Your task to perform on an android device: uninstall "Truecaller" Image 0: 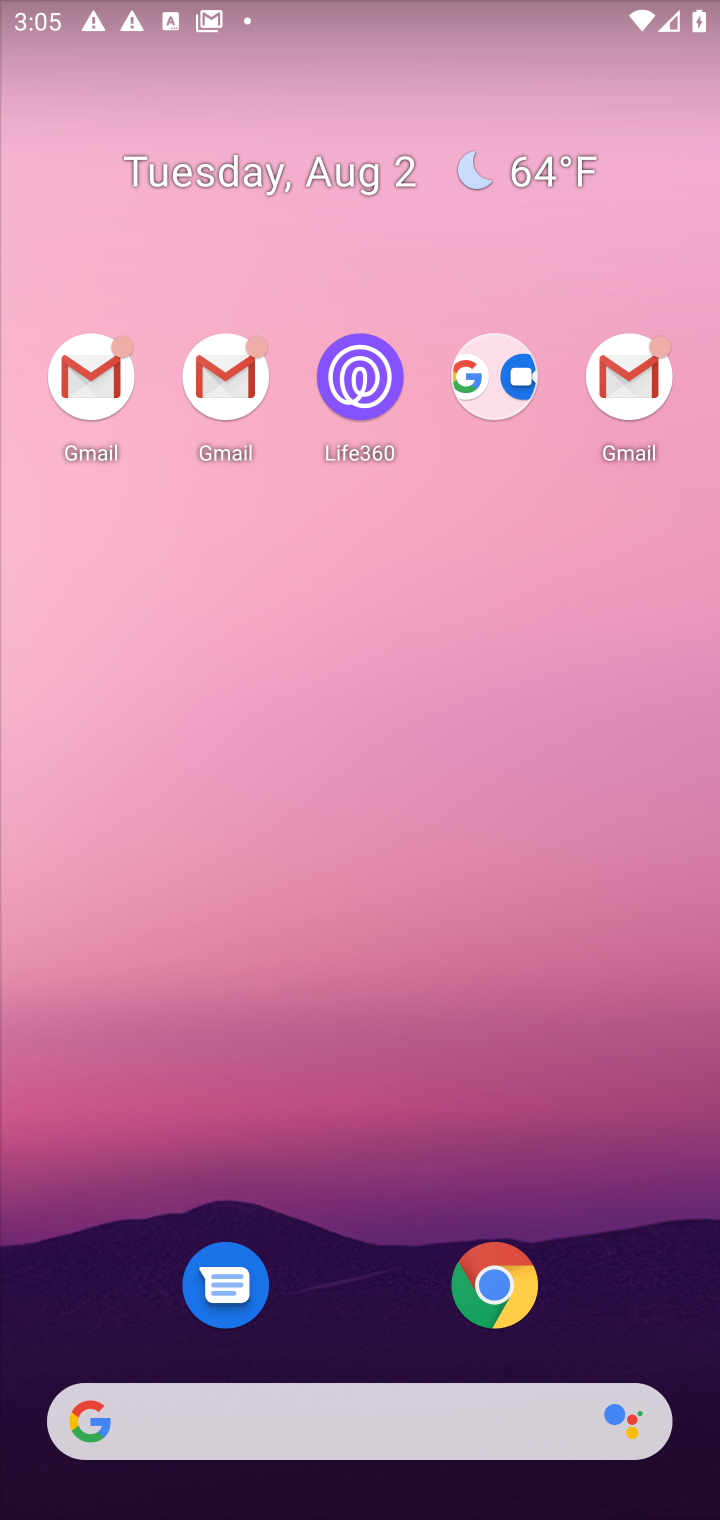
Step 0: drag from (315, 1184) to (436, 73)
Your task to perform on an android device: uninstall "Truecaller" Image 1: 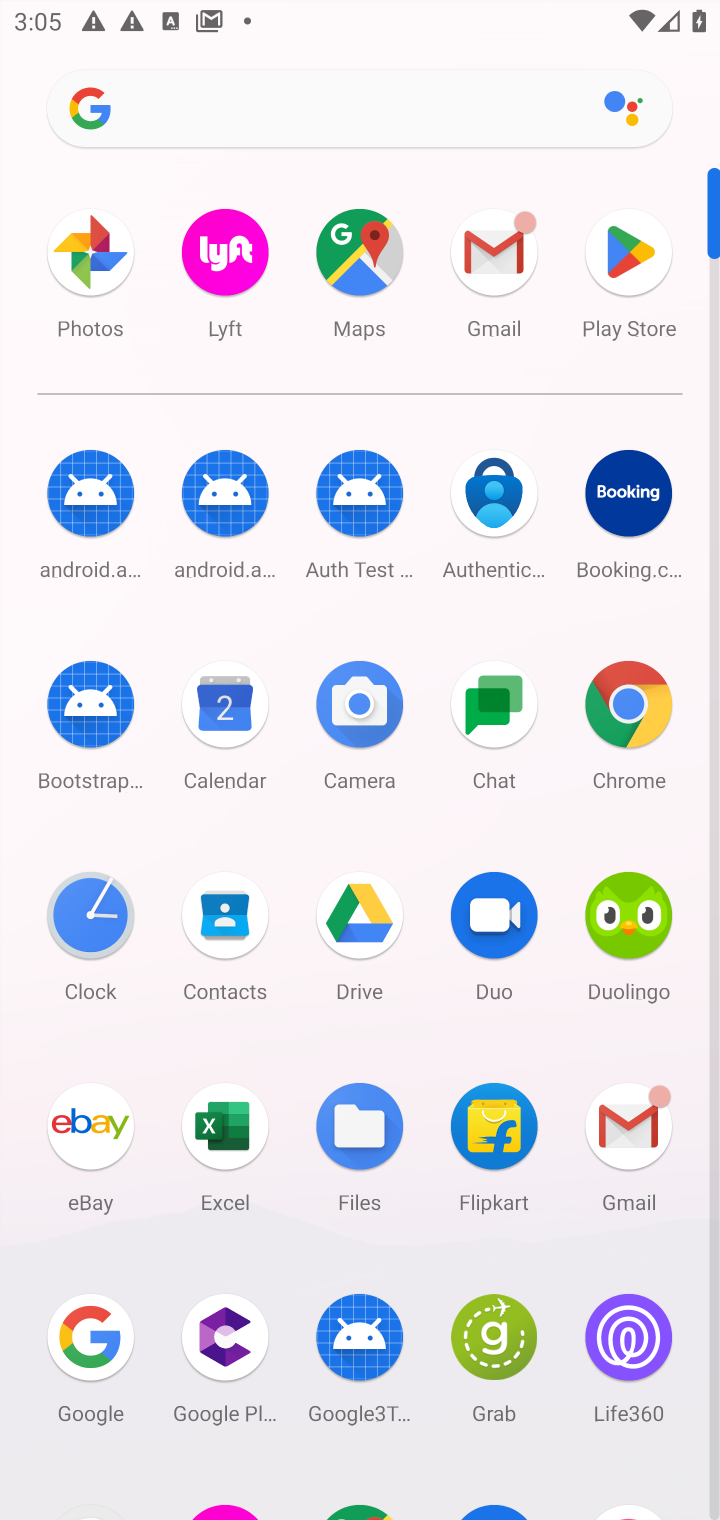
Step 1: drag from (420, 1262) to (553, 611)
Your task to perform on an android device: uninstall "Truecaller" Image 2: 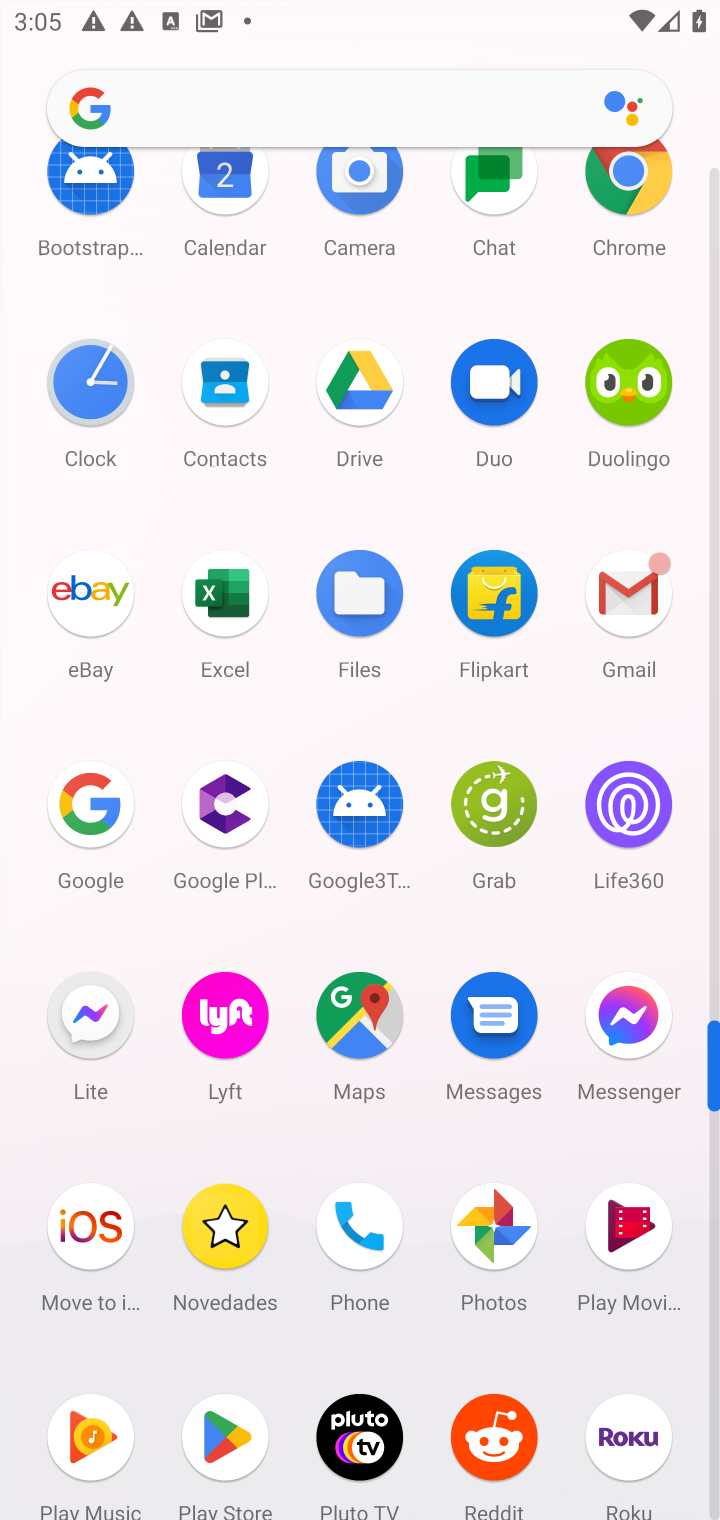
Step 2: click (224, 1442)
Your task to perform on an android device: uninstall "Truecaller" Image 3: 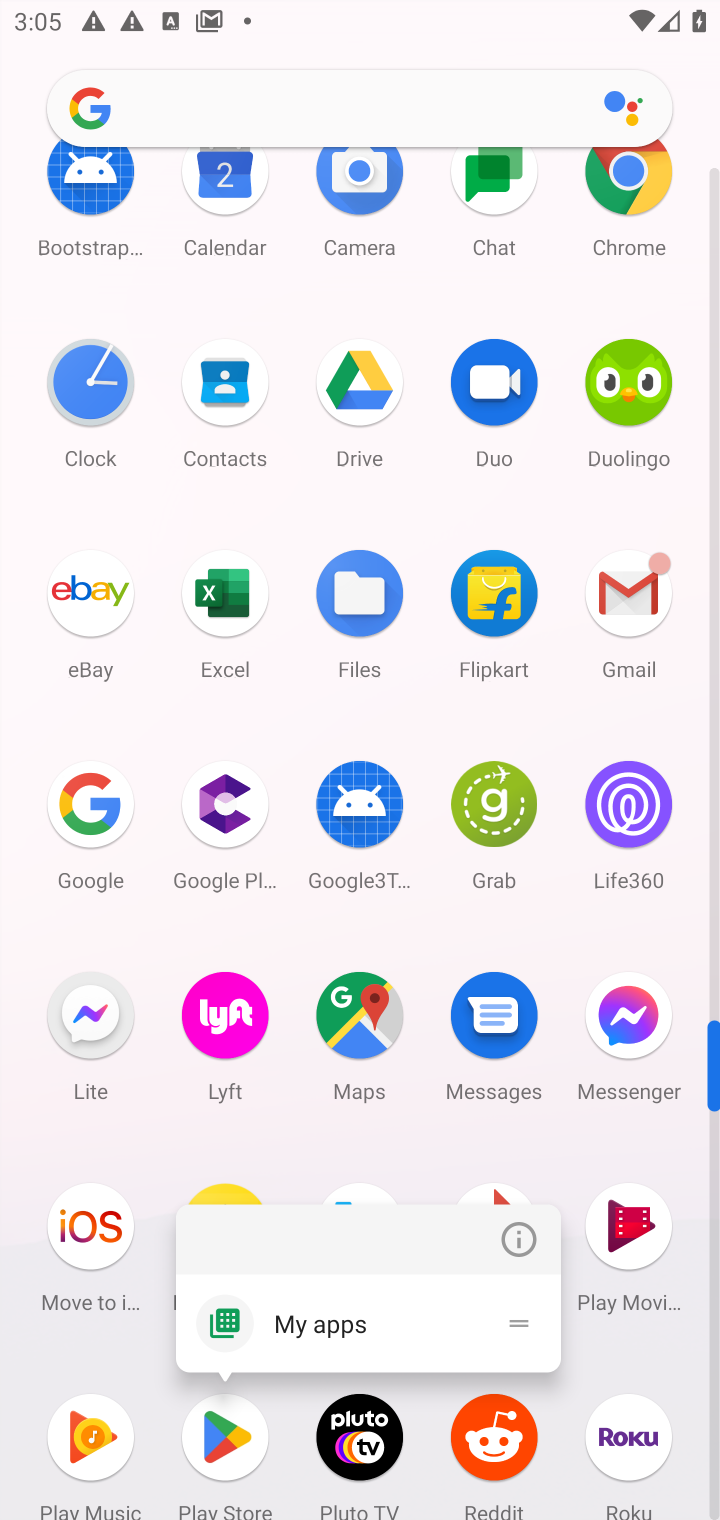
Step 3: click (224, 1442)
Your task to perform on an android device: uninstall "Truecaller" Image 4: 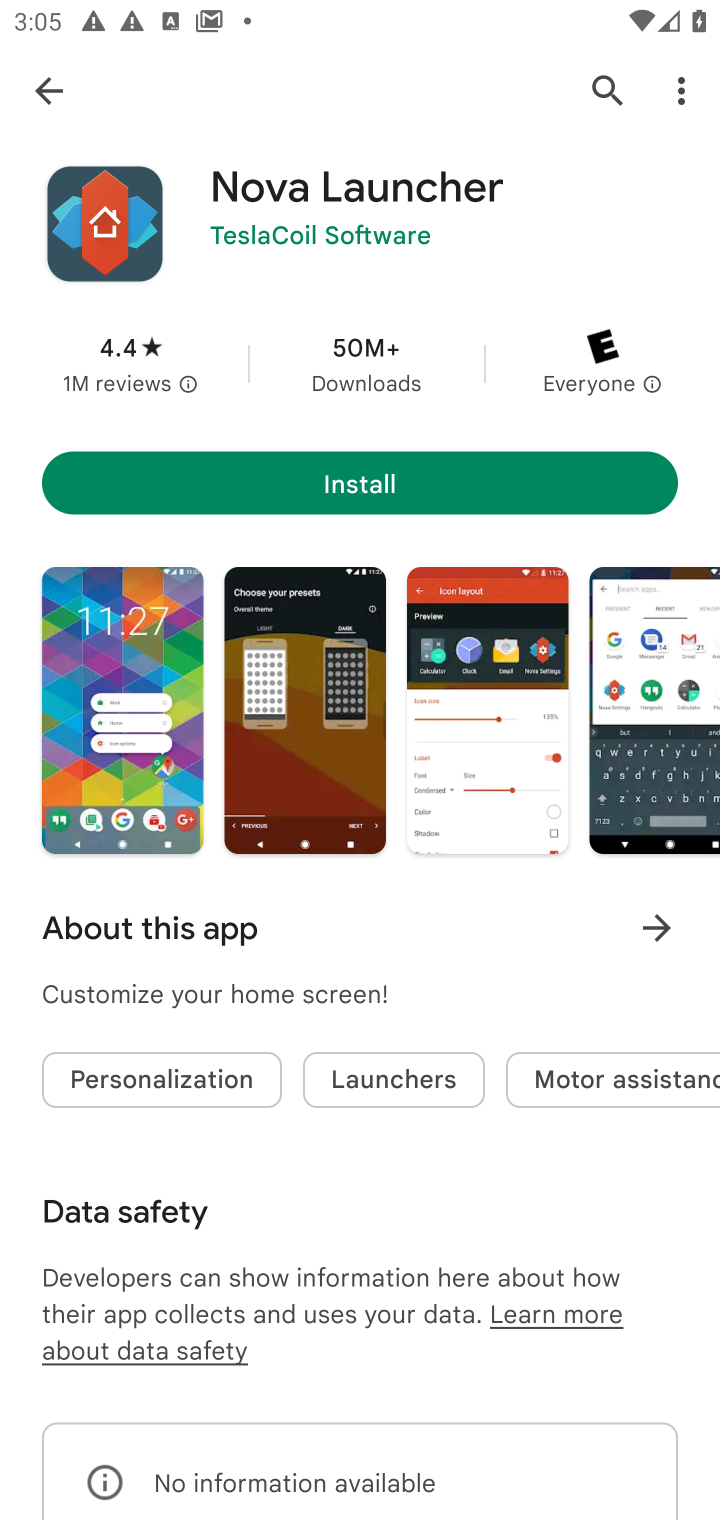
Step 4: click (609, 83)
Your task to perform on an android device: uninstall "Truecaller" Image 5: 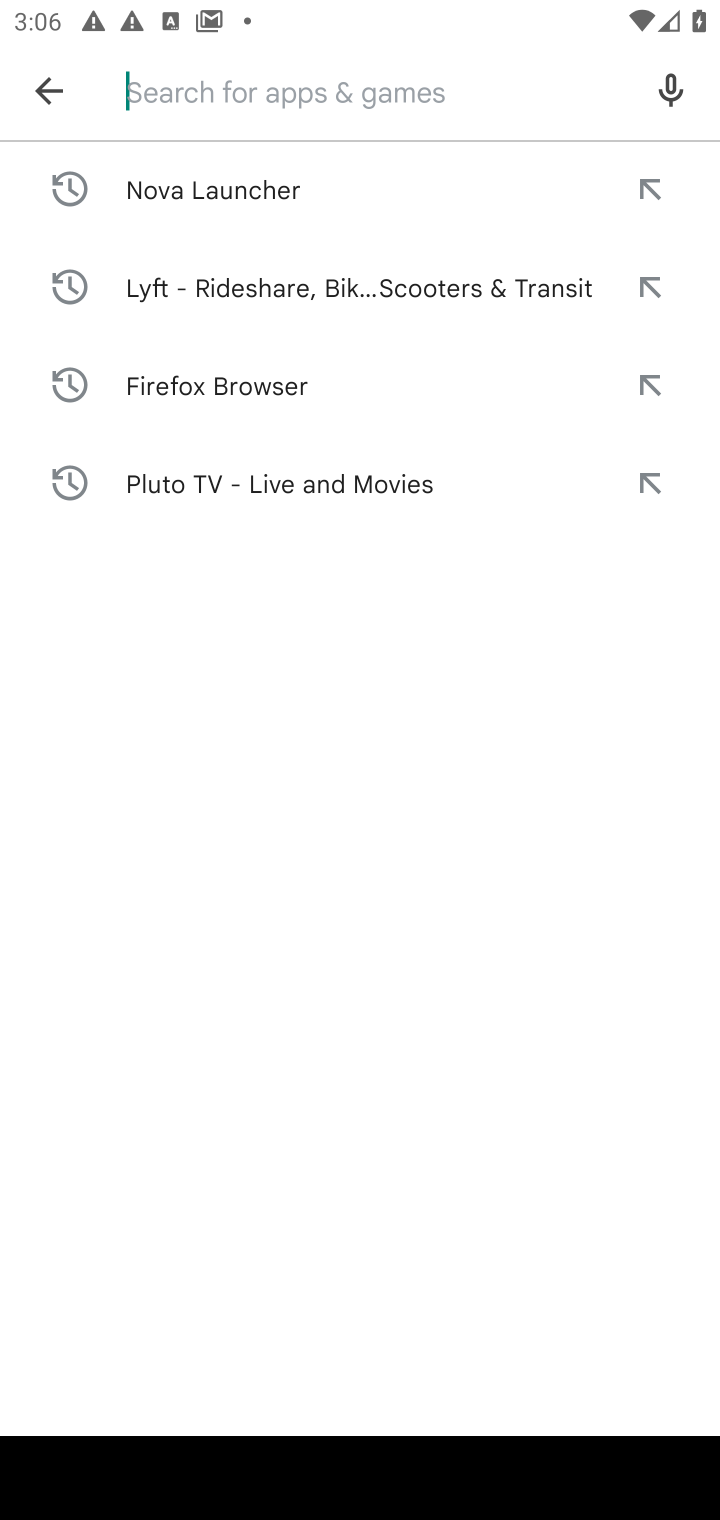
Step 5: type "Truecaller"
Your task to perform on an android device: uninstall "Truecaller" Image 6: 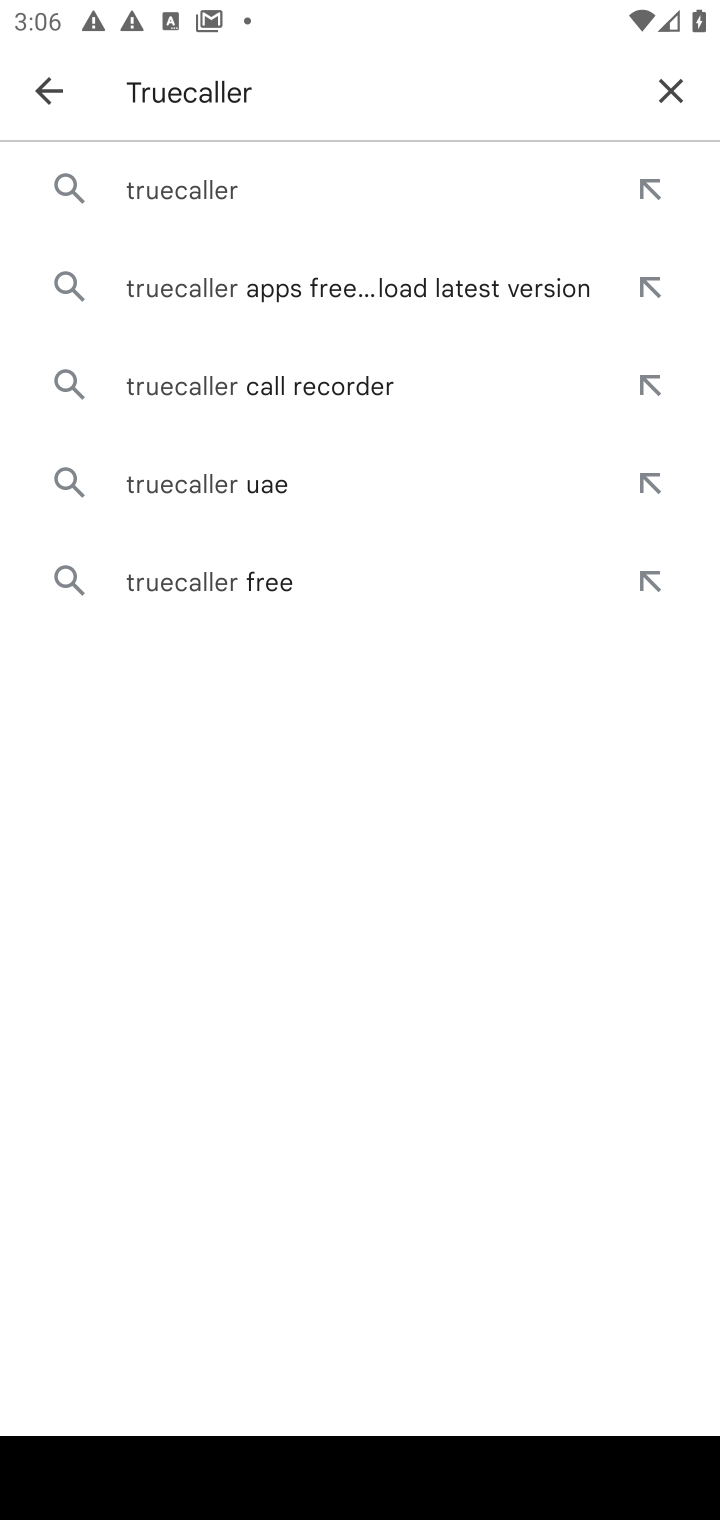
Step 6: press enter
Your task to perform on an android device: uninstall "Truecaller" Image 7: 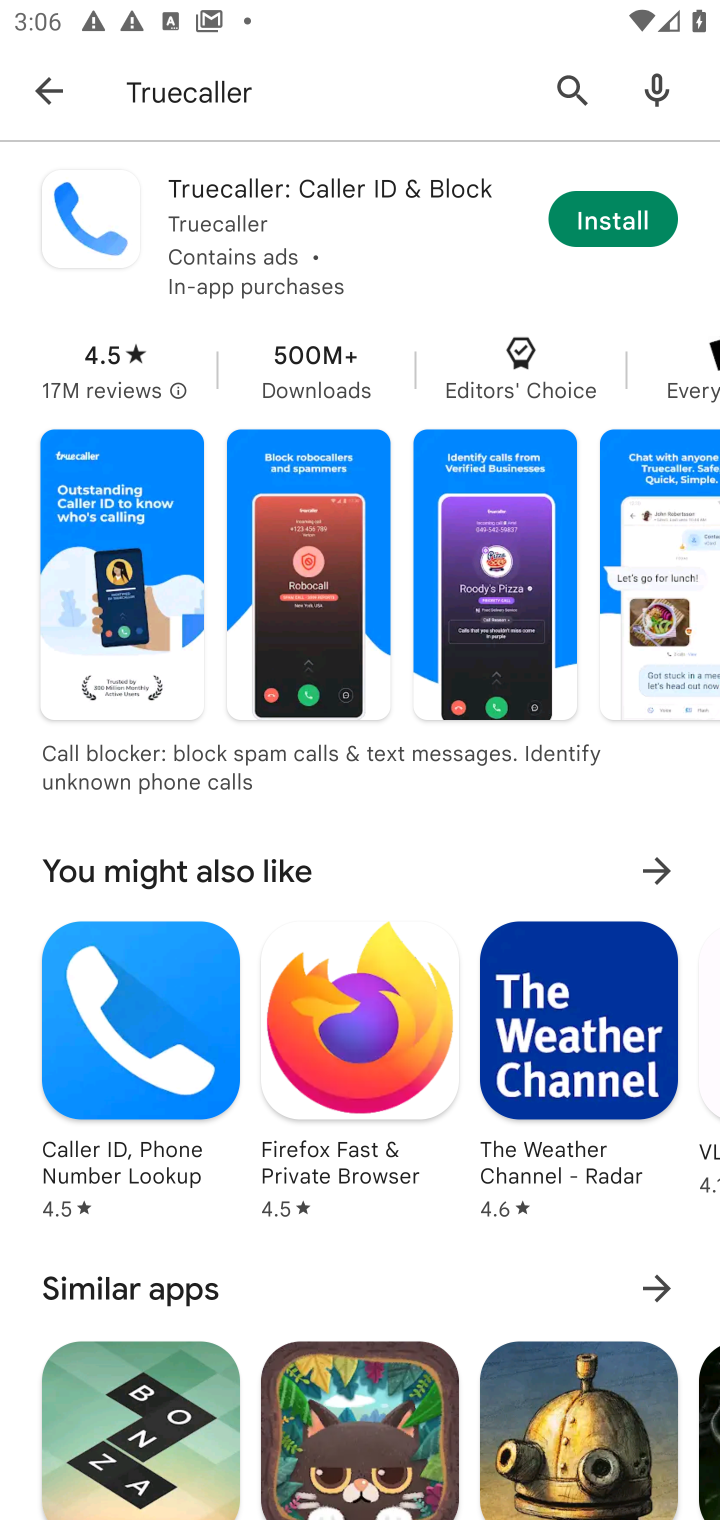
Step 7: task complete